Your task to perform on an android device: open chrome privacy settings Image 0: 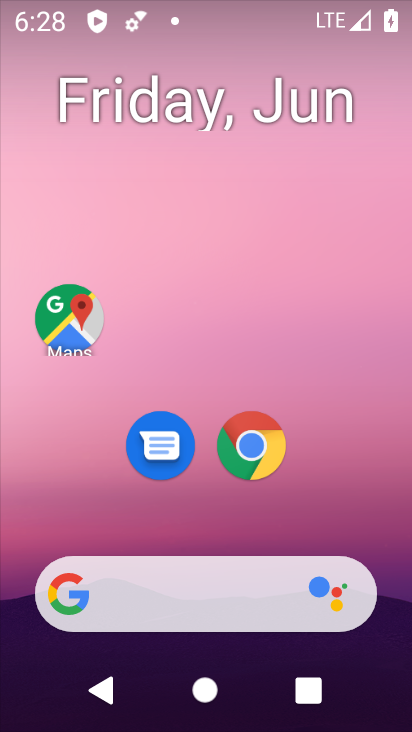
Step 0: click (158, 589)
Your task to perform on an android device: open chrome privacy settings Image 1: 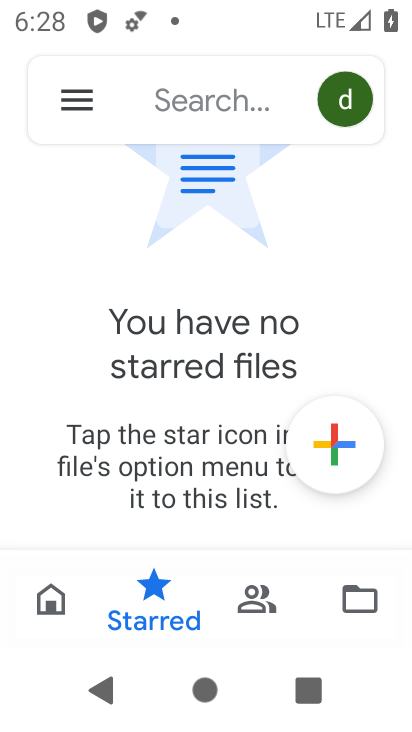
Step 1: press home button
Your task to perform on an android device: open chrome privacy settings Image 2: 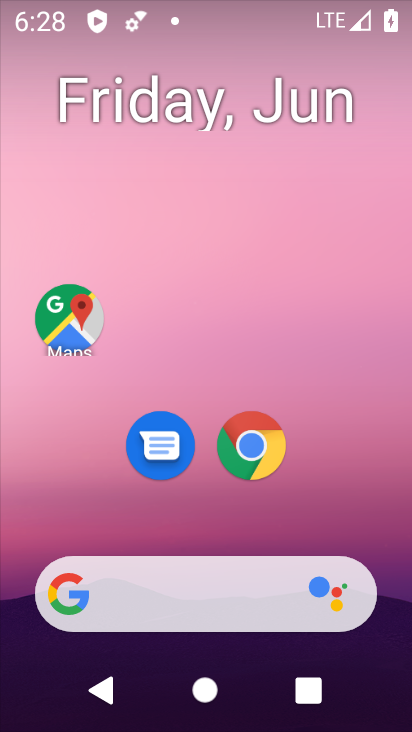
Step 2: click (240, 458)
Your task to perform on an android device: open chrome privacy settings Image 3: 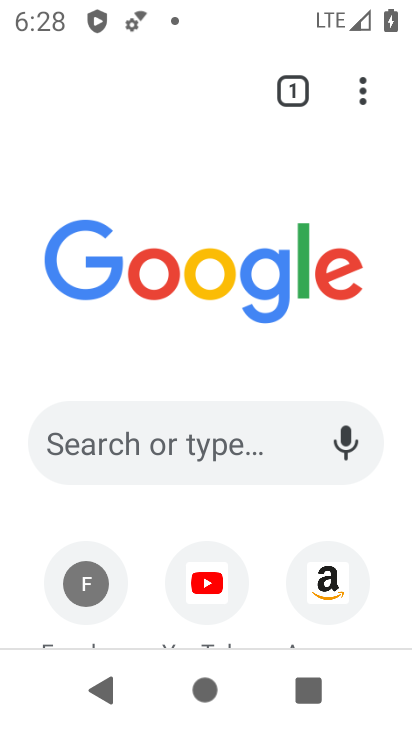
Step 3: click (353, 87)
Your task to perform on an android device: open chrome privacy settings Image 4: 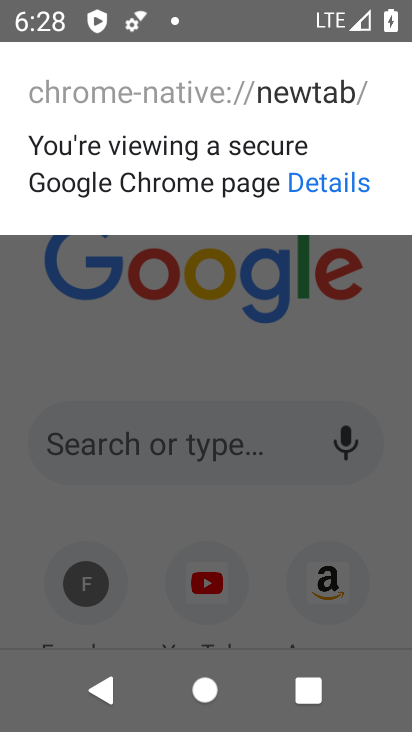
Step 4: click (371, 284)
Your task to perform on an android device: open chrome privacy settings Image 5: 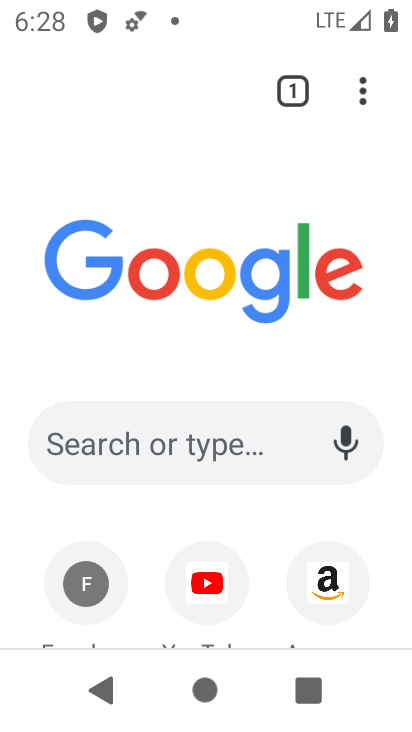
Step 5: click (352, 95)
Your task to perform on an android device: open chrome privacy settings Image 6: 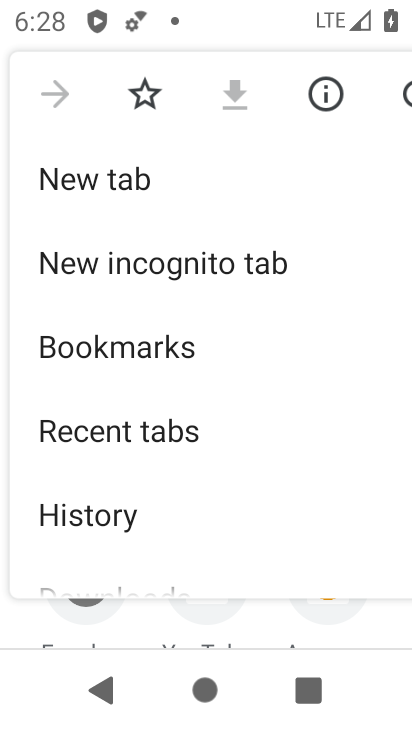
Step 6: drag from (171, 479) to (148, 157)
Your task to perform on an android device: open chrome privacy settings Image 7: 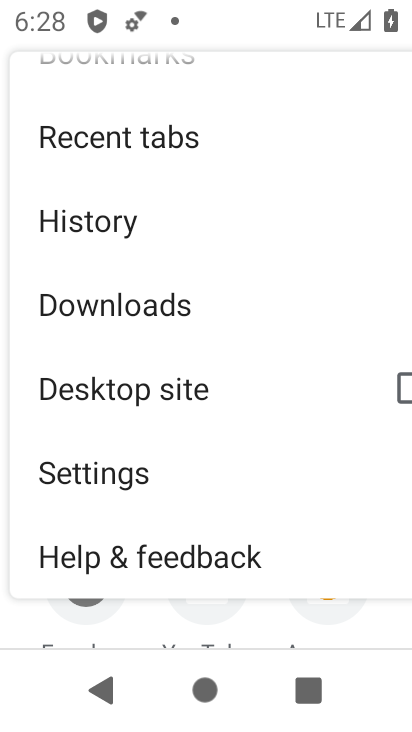
Step 7: click (134, 472)
Your task to perform on an android device: open chrome privacy settings Image 8: 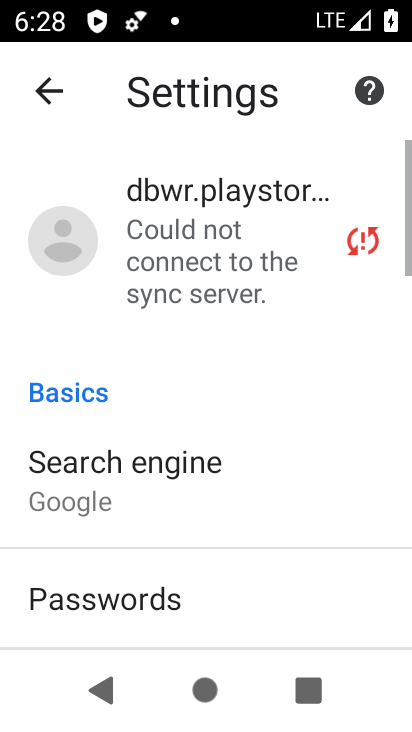
Step 8: drag from (166, 509) to (212, 276)
Your task to perform on an android device: open chrome privacy settings Image 9: 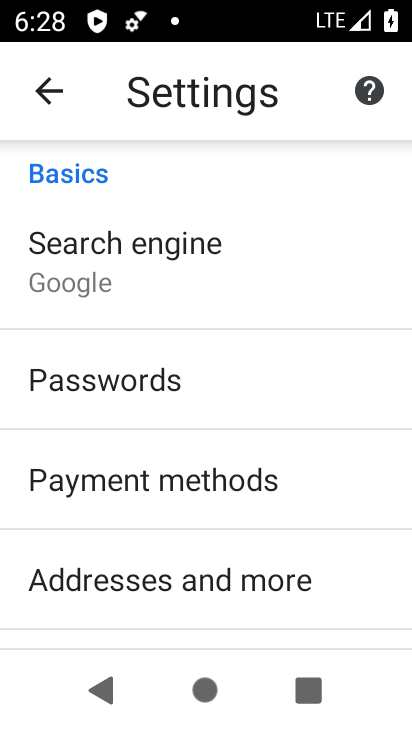
Step 9: drag from (202, 495) to (192, 195)
Your task to perform on an android device: open chrome privacy settings Image 10: 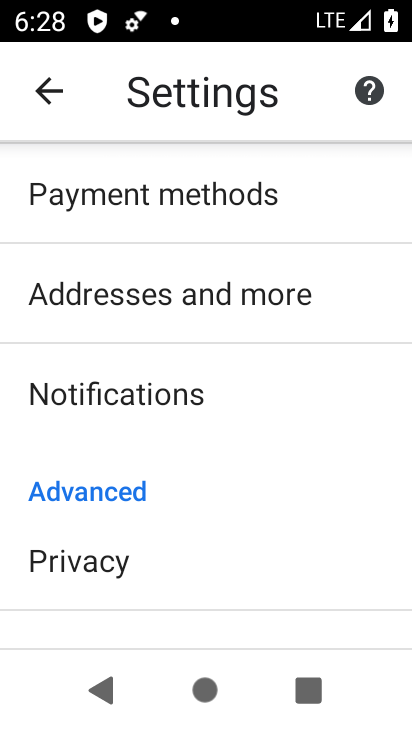
Step 10: click (107, 566)
Your task to perform on an android device: open chrome privacy settings Image 11: 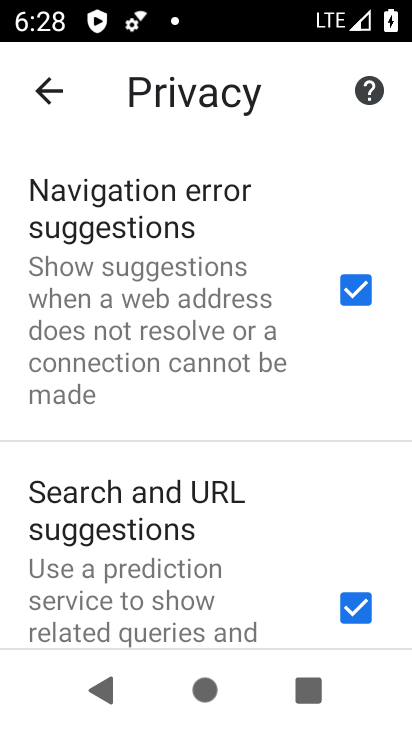
Step 11: task complete